Your task to perform on an android device: toggle notification dots Image 0: 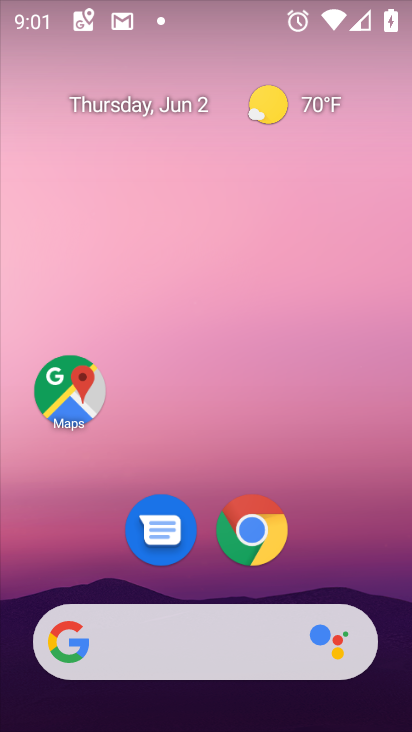
Step 0: drag from (206, 532) to (206, 191)
Your task to perform on an android device: toggle notification dots Image 1: 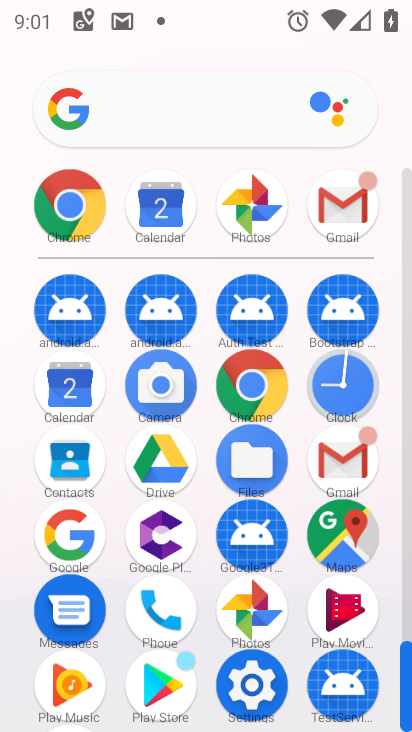
Step 1: click (240, 691)
Your task to perform on an android device: toggle notification dots Image 2: 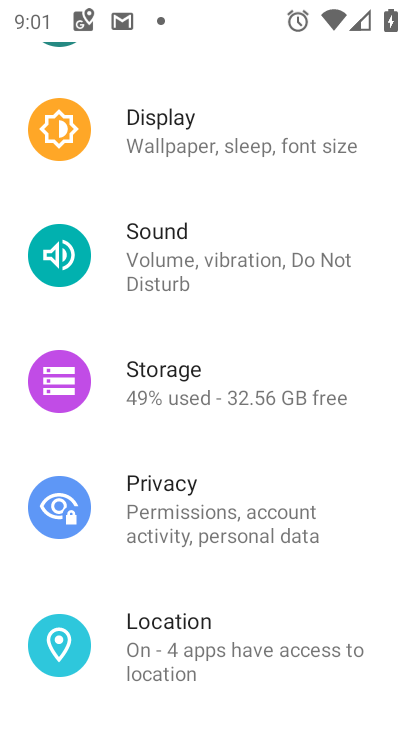
Step 2: drag from (200, 140) to (162, 621)
Your task to perform on an android device: toggle notification dots Image 3: 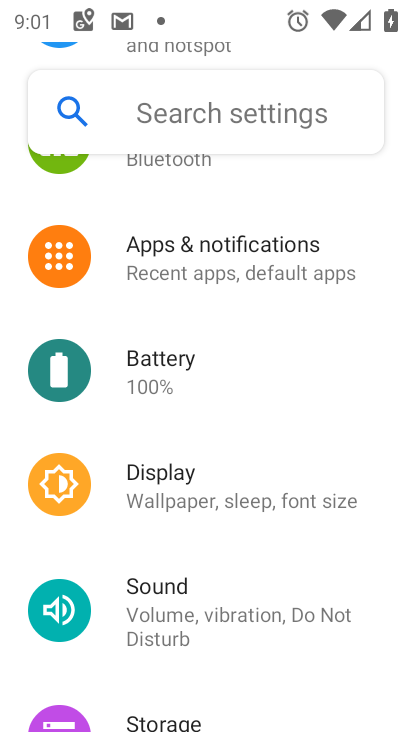
Step 3: click (203, 259)
Your task to perform on an android device: toggle notification dots Image 4: 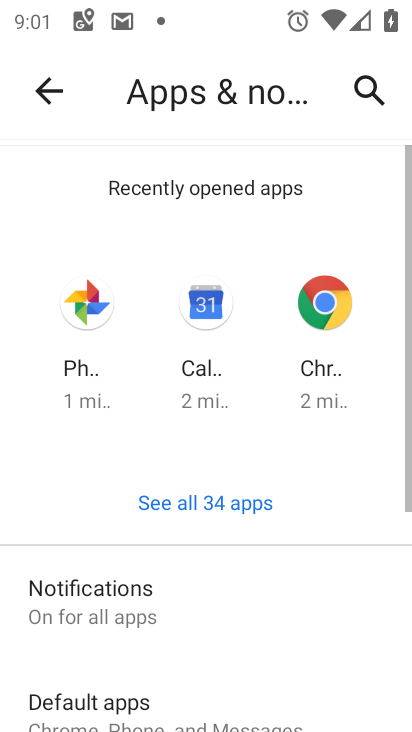
Step 4: click (126, 601)
Your task to perform on an android device: toggle notification dots Image 5: 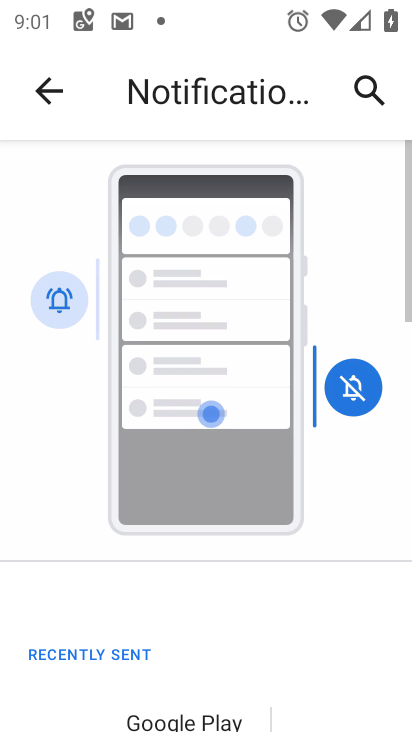
Step 5: drag from (130, 534) to (129, 323)
Your task to perform on an android device: toggle notification dots Image 6: 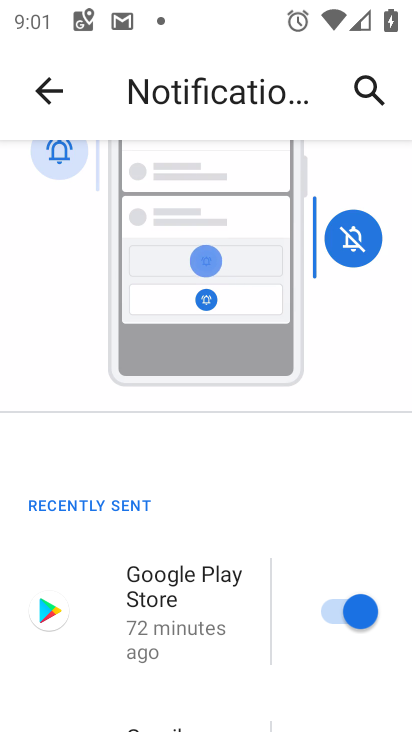
Step 6: drag from (86, 680) to (90, 298)
Your task to perform on an android device: toggle notification dots Image 7: 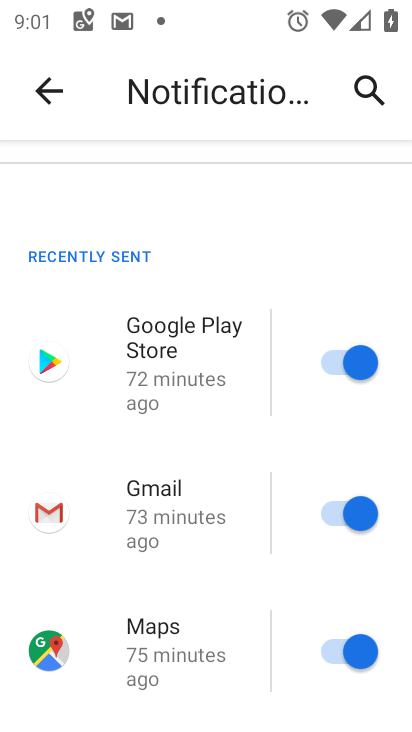
Step 7: drag from (180, 682) to (223, 291)
Your task to perform on an android device: toggle notification dots Image 8: 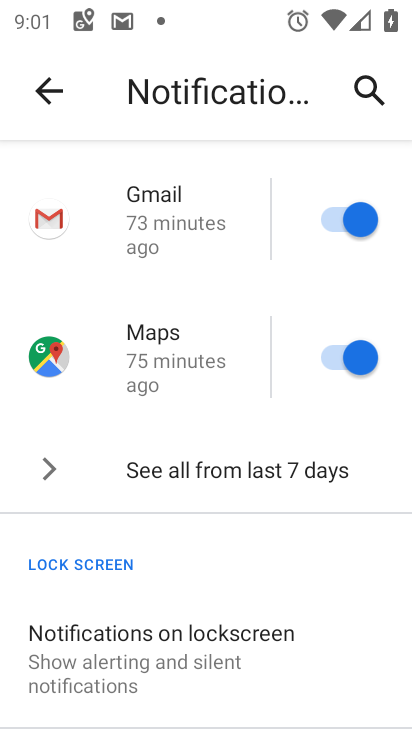
Step 8: drag from (168, 702) to (190, 359)
Your task to perform on an android device: toggle notification dots Image 9: 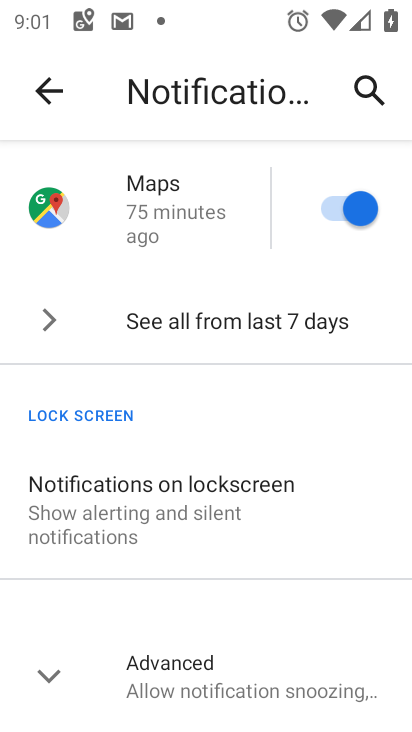
Step 9: click (202, 678)
Your task to perform on an android device: toggle notification dots Image 10: 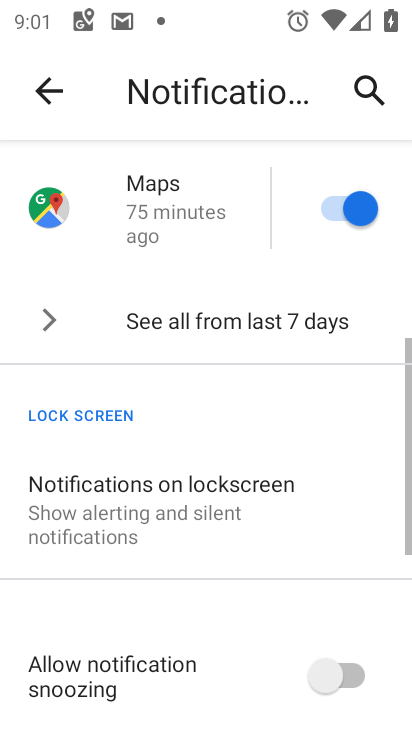
Step 10: drag from (195, 712) to (215, 369)
Your task to perform on an android device: toggle notification dots Image 11: 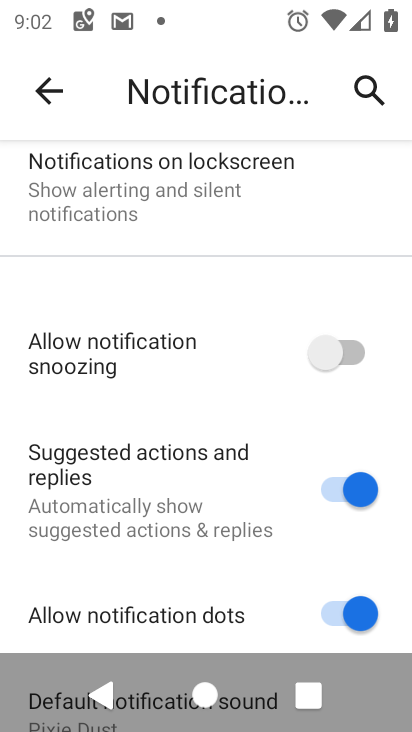
Step 11: click (330, 616)
Your task to perform on an android device: toggle notification dots Image 12: 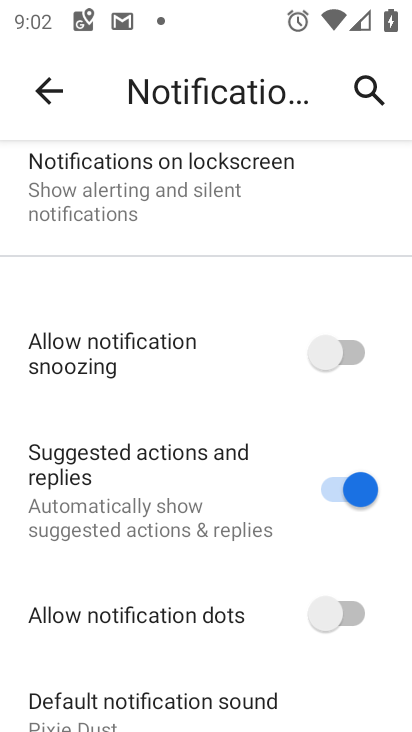
Step 12: task complete